Your task to perform on an android device: Search for the new steph curry shoes on Amazon. Image 0: 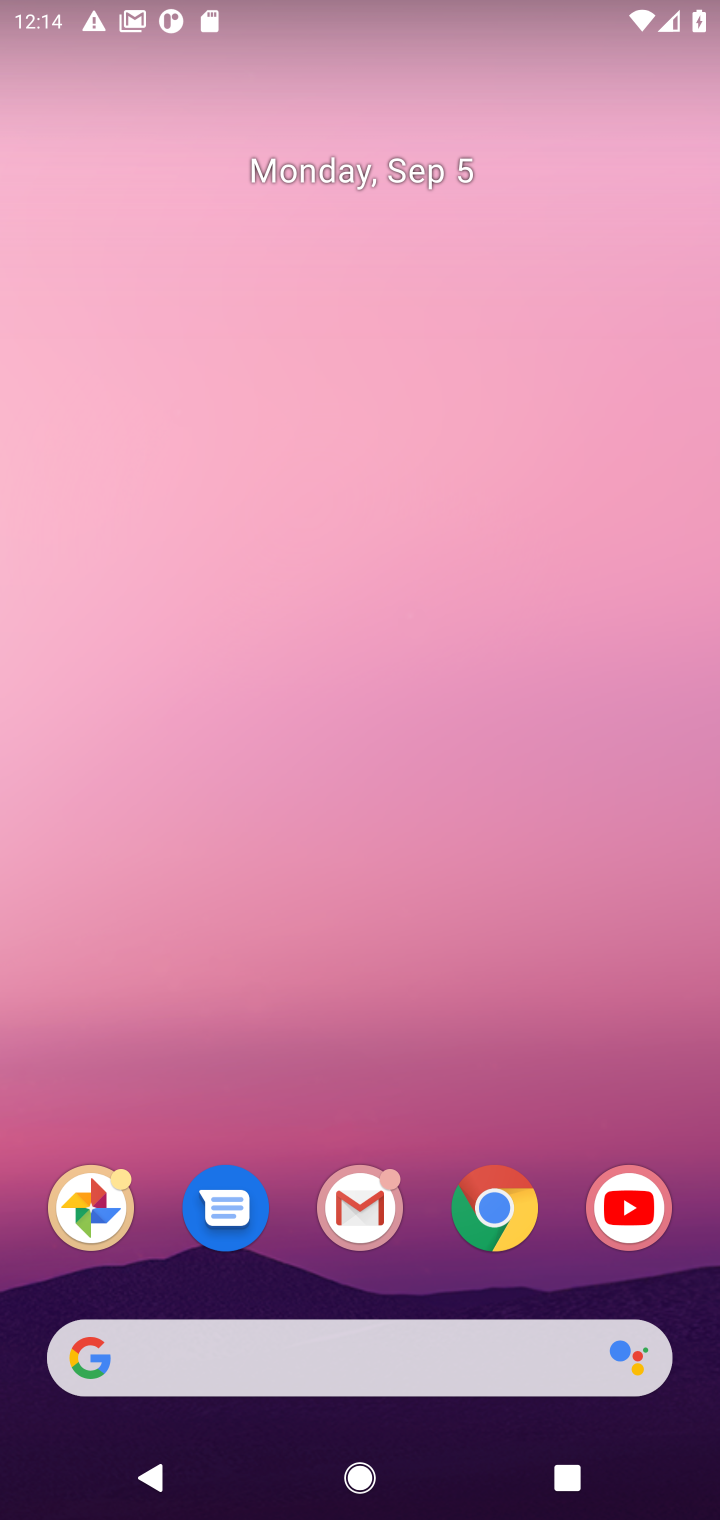
Step 0: click (77, 786)
Your task to perform on an android device: Search for the new steph curry shoes on Amazon. Image 1: 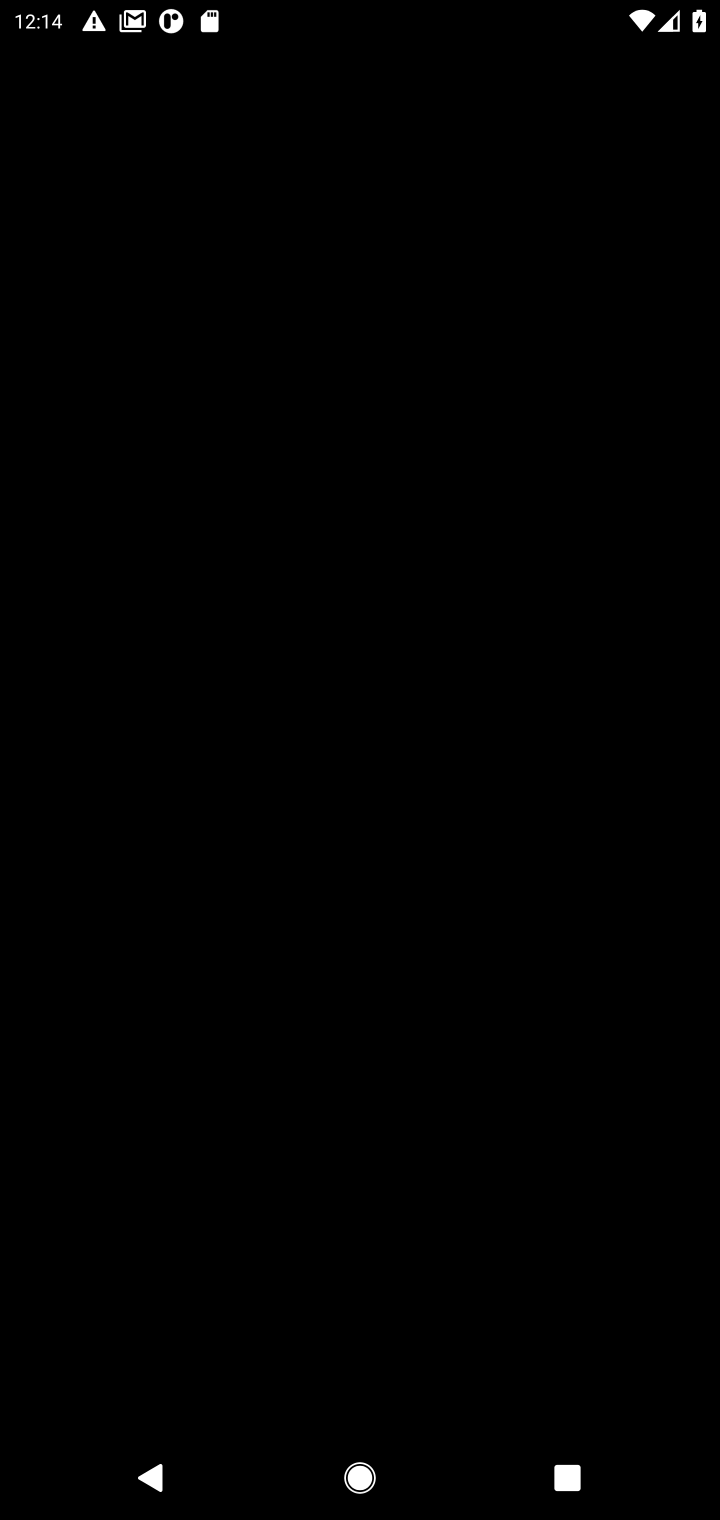
Step 1: task complete